Your task to perform on an android device: turn on bluetooth scan Image 0: 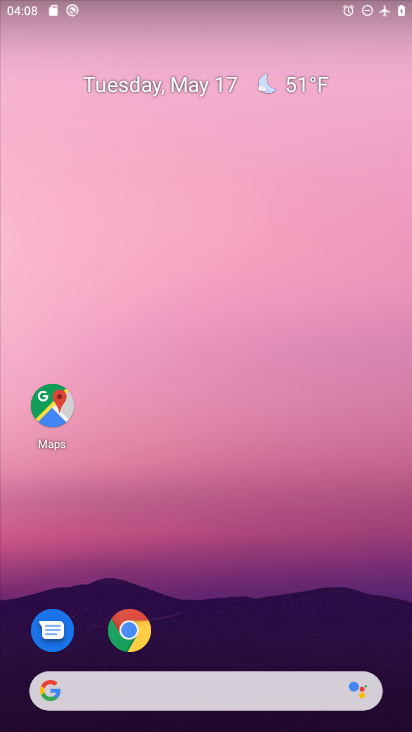
Step 0: drag from (270, 616) to (298, 105)
Your task to perform on an android device: turn on bluetooth scan Image 1: 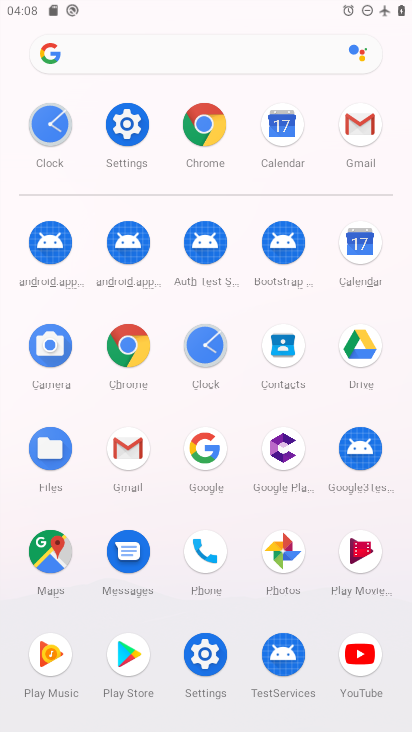
Step 1: click (128, 129)
Your task to perform on an android device: turn on bluetooth scan Image 2: 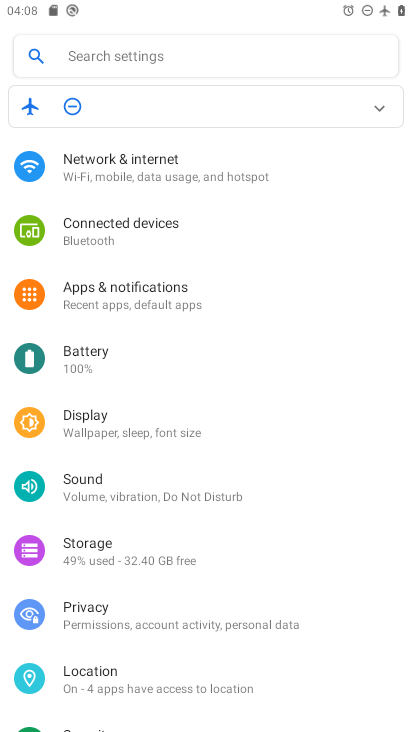
Step 2: click (120, 226)
Your task to perform on an android device: turn on bluetooth scan Image 3: 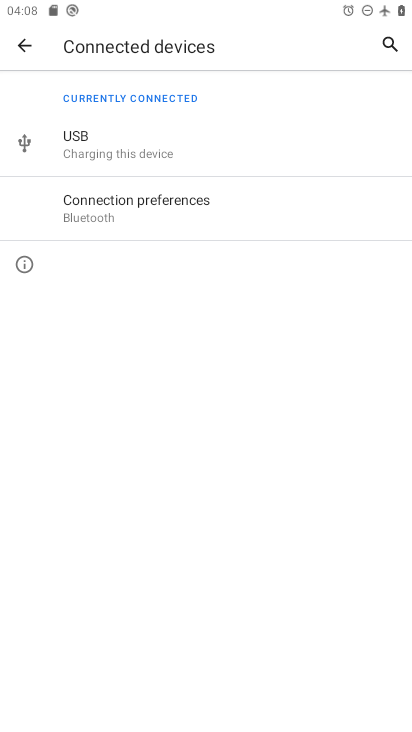
Step 3: click (140, 217)
Your task to perform on an android device: turn on bluetooth scan Image 4: 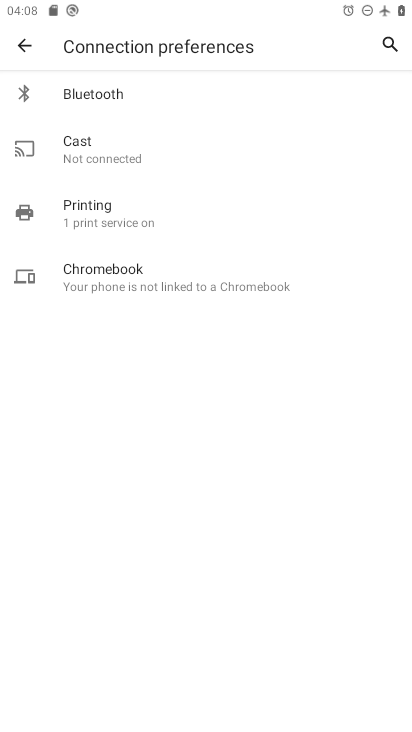
Step 4: click (89, 95)
Your task to perform on an android device: turn on bluetooth scan Image 5: 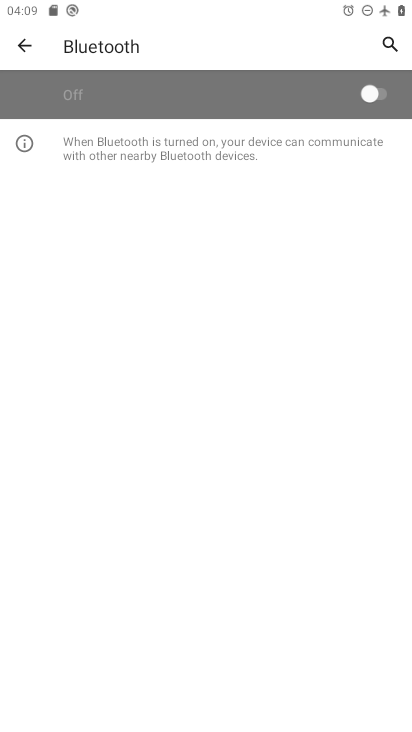
Step 5: click (375, 85)
Your task to perform on an android device: turn on bluetooth scan Image 6: 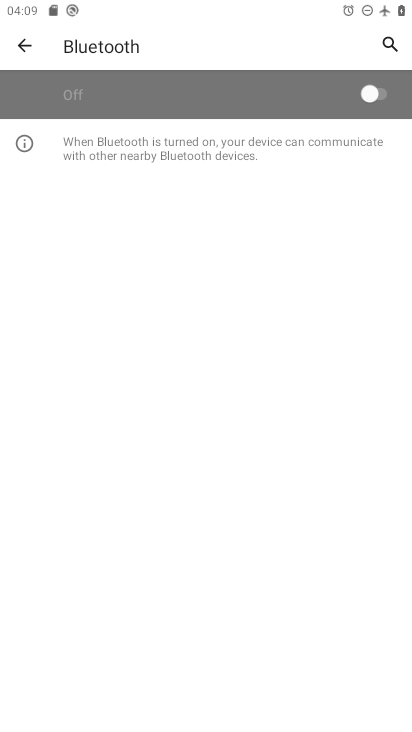
Step 6: task complete